Your task to perform on an android device: toggle sleep mode Image 0: 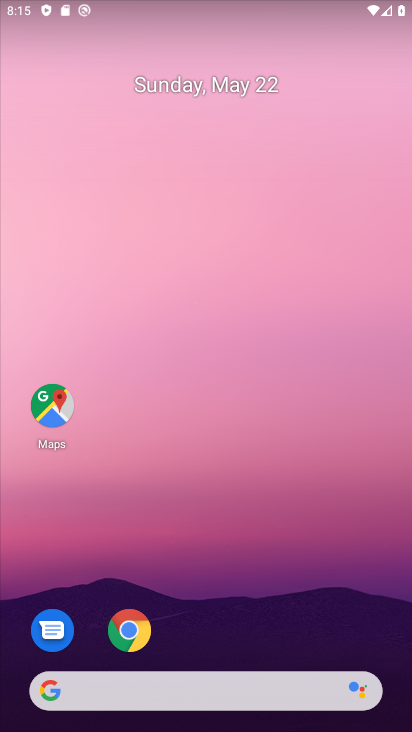
Step 0: drag from (306, 605) to (196, 57)
Your task to perform on an android device: toggle sleep mode Image 1: 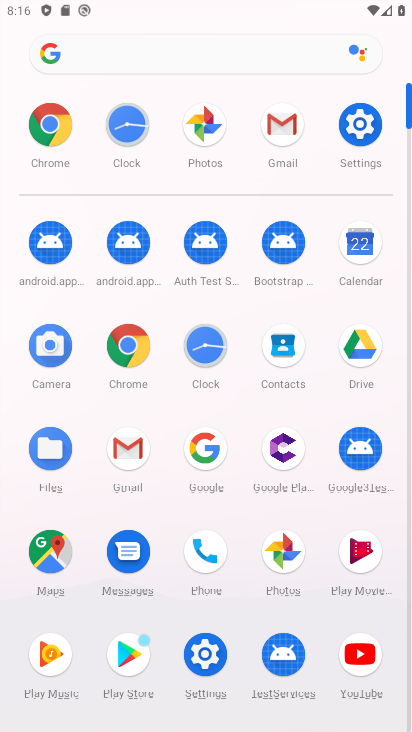
Step 1: click (344, 137)
Your task to perform on an android device: toggle sleep mode Image 2: 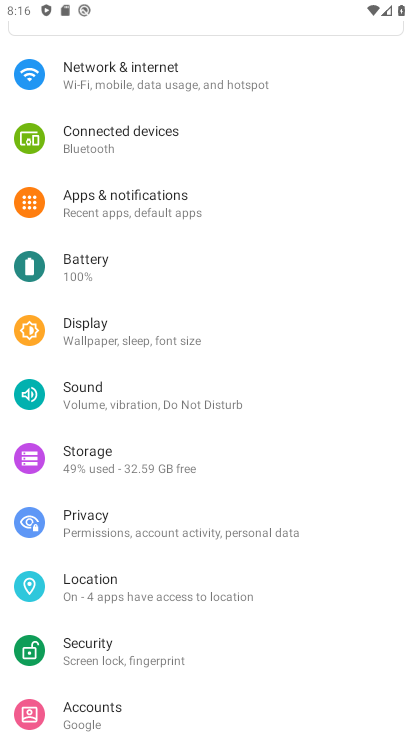
Step 2: drag from (325, 188) to (262, 511)
Your task to perform on an android device: toggle sleep mode Image 3: 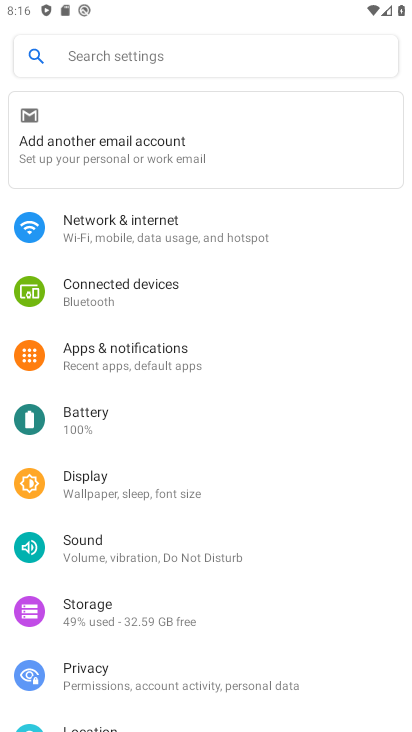
Step 3: drag from (241, 605) to (204, 29)
Your task to perform on an android device: toggle sleep mode Image 4: 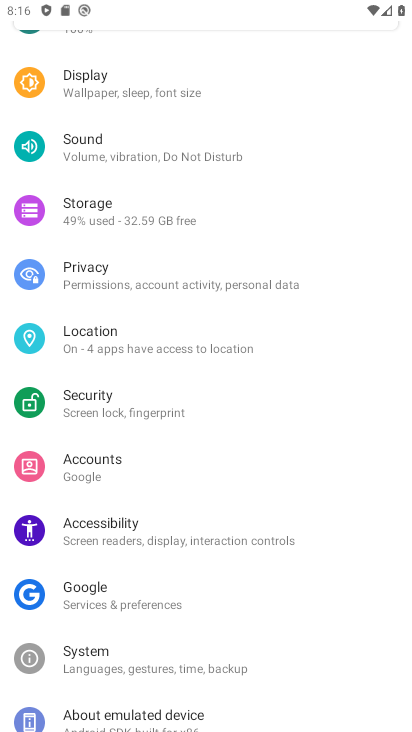
Step 4: click (204, 100)
Your task to perform on an android device: toggle sleep mode Image 5: 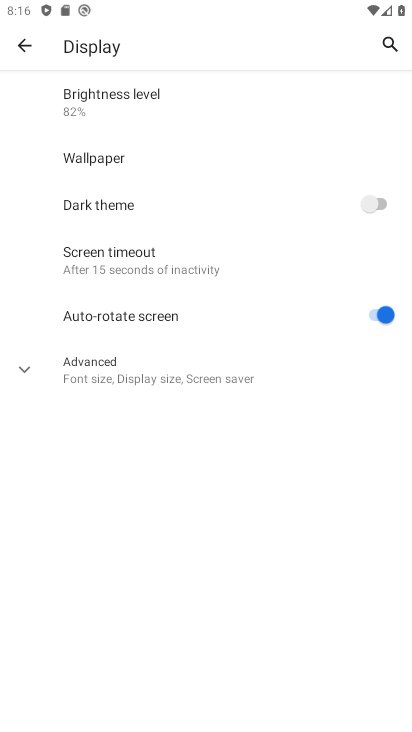
Step 5: click (192, 366)
Your task to perform on an android device: toggle sleep mode Image 6: 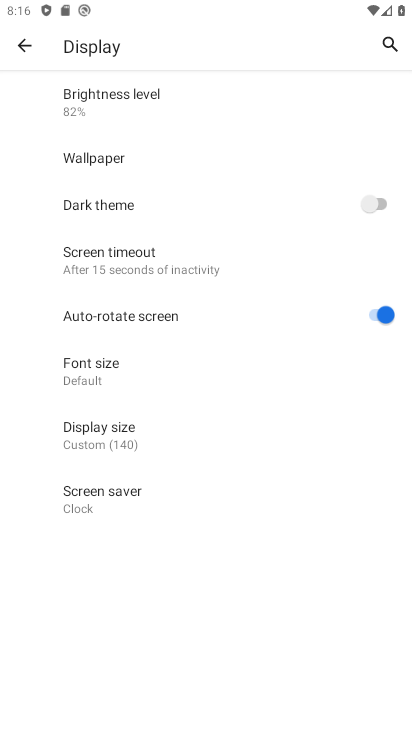
Step 6: click (200, 240)
Your task to perform on an android device: toggle sleep mode Image 7: 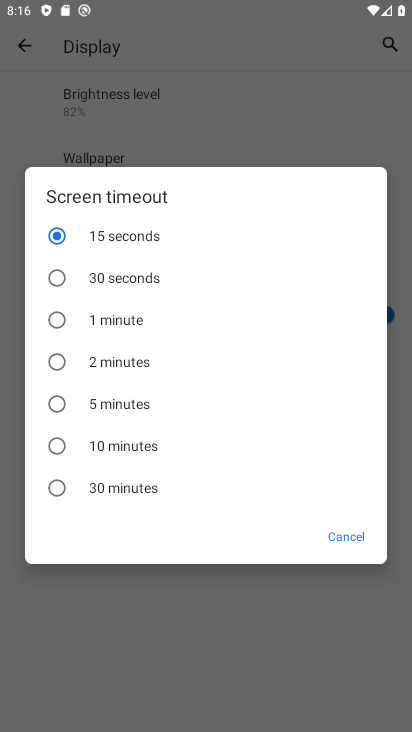
Step 7: click (208, 436)
Your task to perform on an android device: toggle sleep mode Image 8: 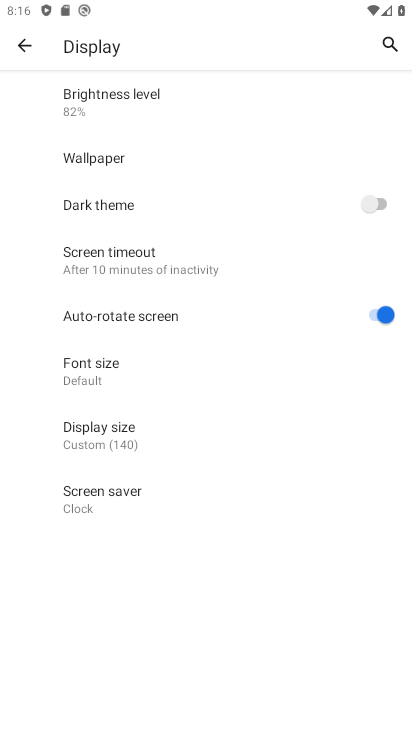
Step 8: task complete